Your task to perform on an android device: Go to wifi settings Image 0: 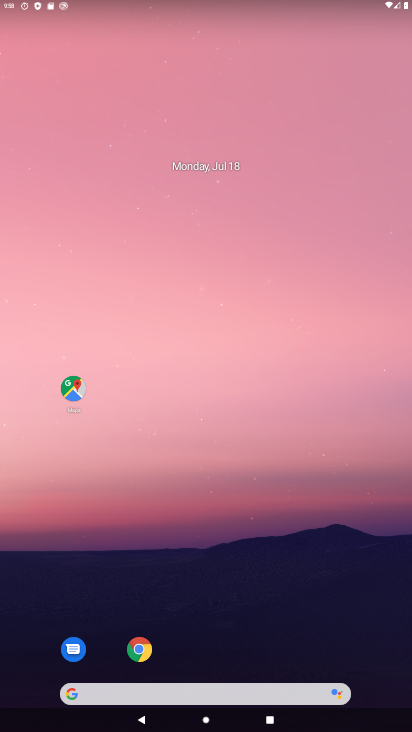
Step 0: drag from (229, 22) to (189, 304)
Your task to perform on an android device: Go to wifi settings Image 1: 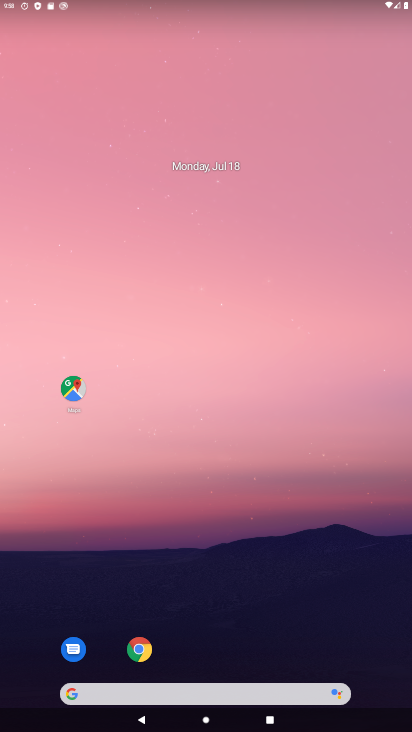
Step 1: drag from (51, 14) to (3, 325)
Your task to perform on an android device: Go to wifi settings Image 2: 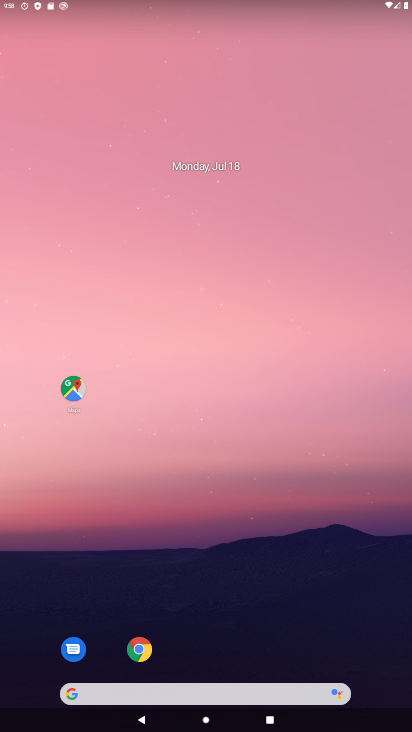
Step 2: drag from (50, 619) to (219, 319)
Your task to perform on an android device: Go to wifi settings Image 3: 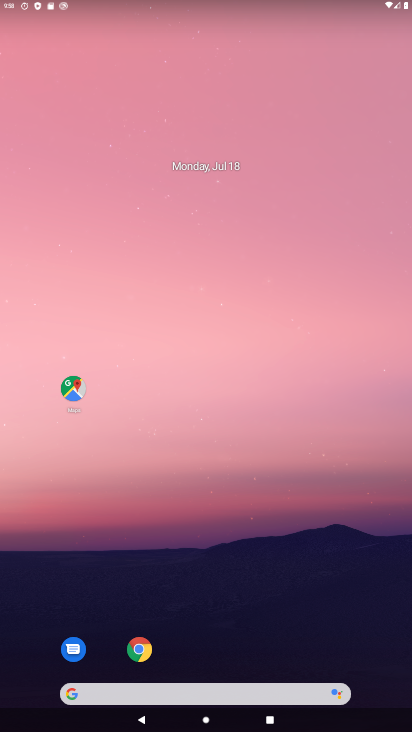
Step 3: drag from (29, 691) to (328, 227)
Your task to perform on an android device: Go to wifi settings Image 4: 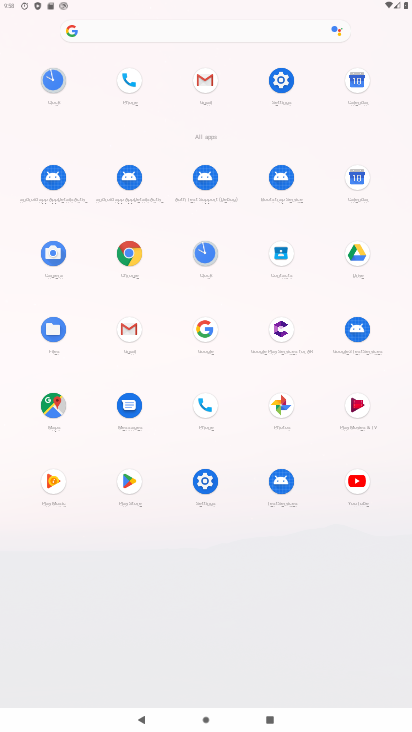
Step 4: click (296, 94)
Your task to perform on an android device: Go to wifi settings Image 5: 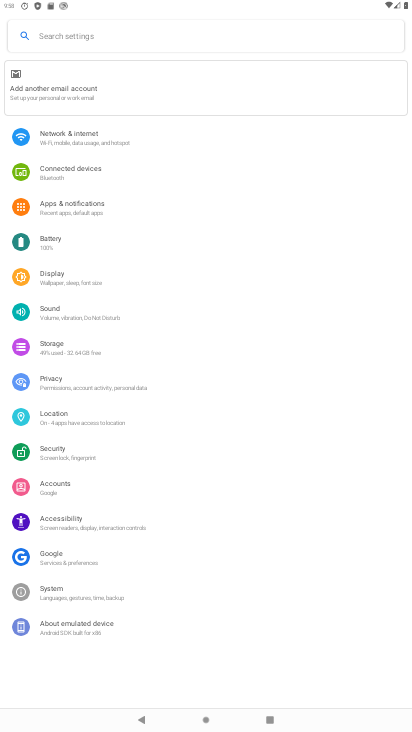
Step 5: click (120, 149)
Your task to perform on an android device: Go to wifi settings Image 6: 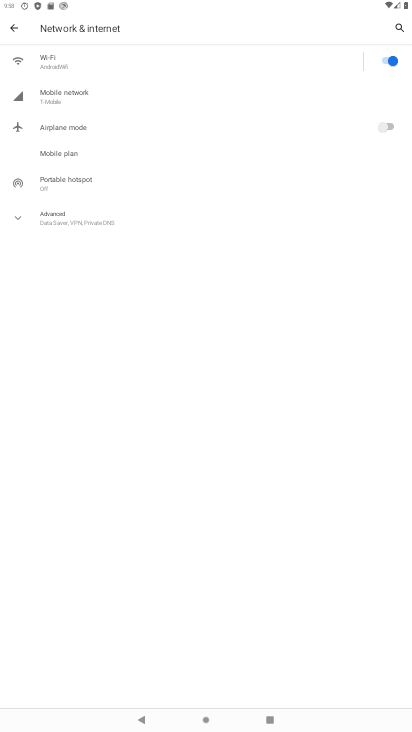
Step 6: click (111, 59)
Your task to perform on an android device: Go to wifi settings Image 7: 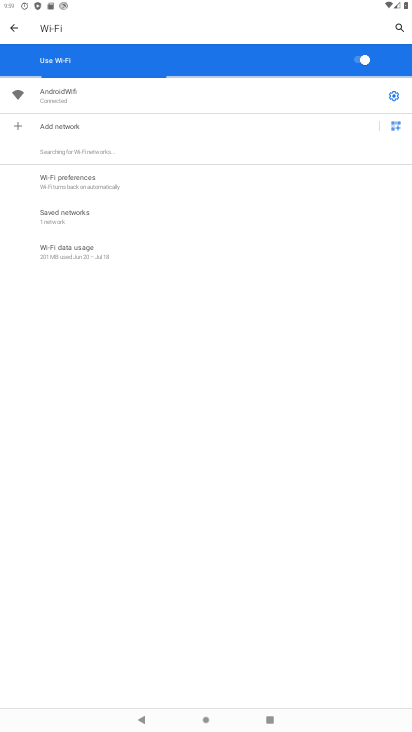
Step 7: click (395, 96)
Your task to perform on an android device: Go to wifi settings Image 8: 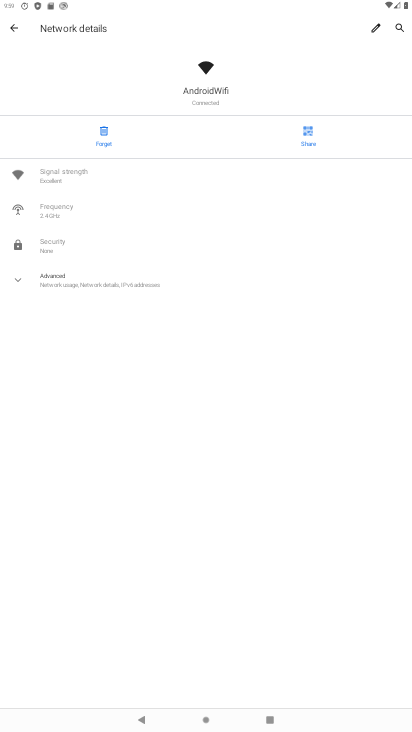
Step 8: task complete